Your task to perform on an android device: Search for flights from San Diego to Seattle Image 0: 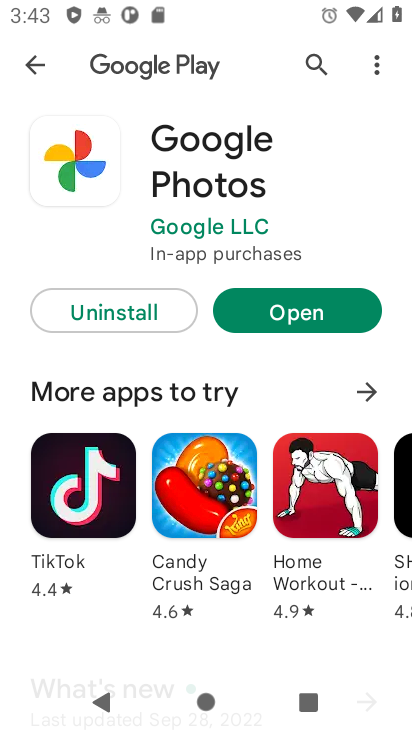
Step 0: press home button
Your task to perform on an android device: Search for flights from San Diego to Seattle Image 1: 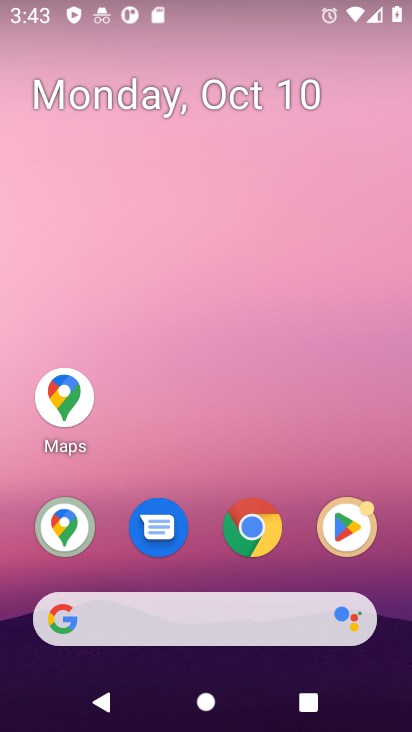
Step 1: click (252, 528)
Your task to perform on an android device: Search for flights from San Diego to Seattle Image 2: 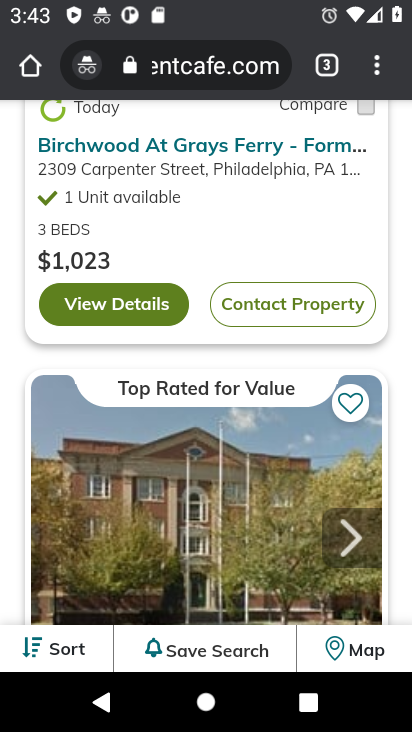
Step 2: click (251, 77)
Your task to perform on an android device: Search for flights from San Diego to Seattle Image 3: 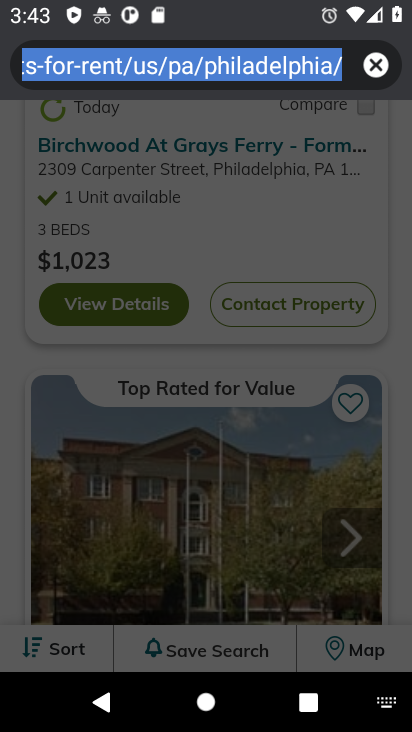
Step 3: click (376, 63)
Your task to perform on an android device: Search for flights from San Diego to Seattle Image 4: 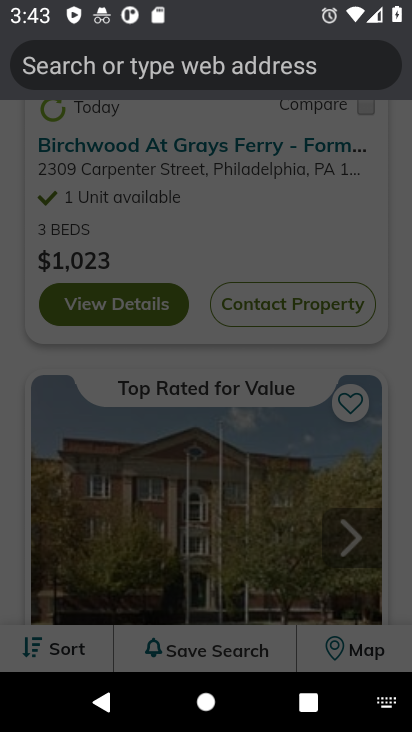
Step 4: click (241, 62)
Your task to perform on an android device: Search for flights from San Diego to Seattle Image 5: 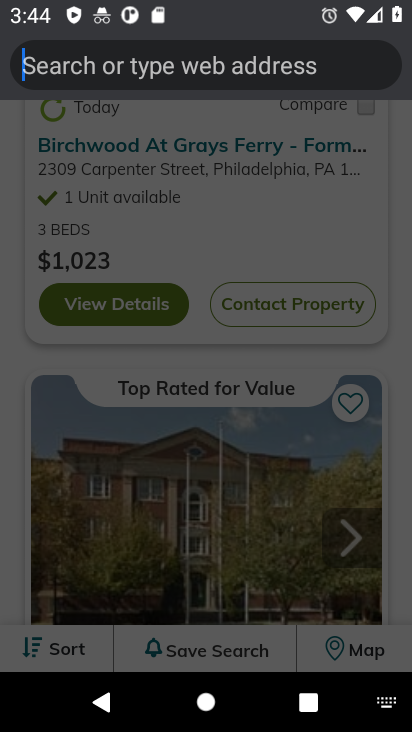
Step 5: type "flights from San Diego to Seattle"
Your task to perform on an android device: Search for flights from San Diego to Seattle Image 6: 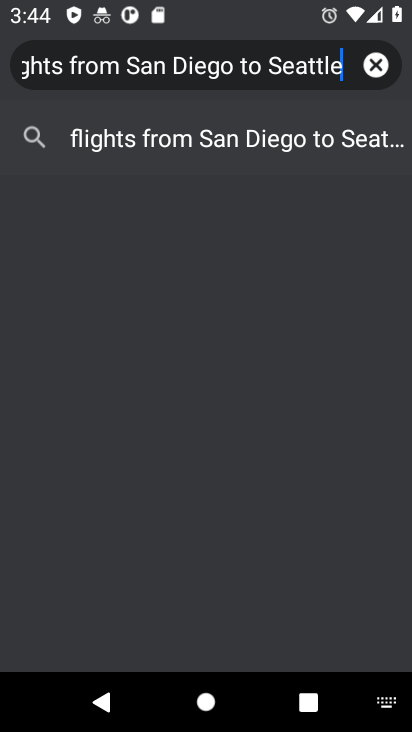
Step 6: click (324, 140)
Your task to perform on an android device: Search for flights from San Diego to Seattle Image 7: 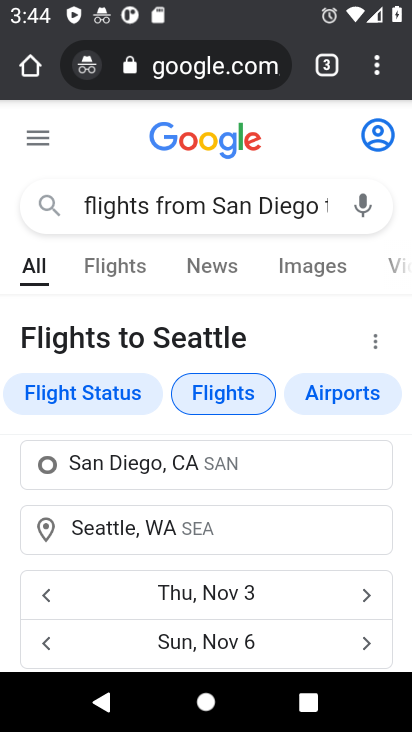
Step 7: task complete